Your task to perform on an android device: empty trash in google photos Image 0: 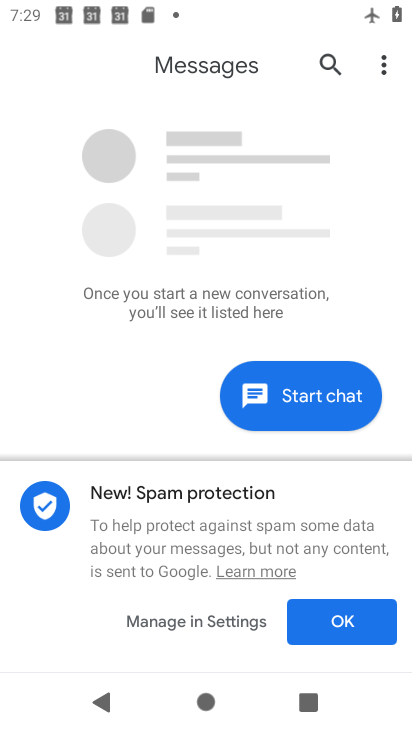
Step 0: press home button
Your task to perform on an android device: empty trash in google photos Image 1: 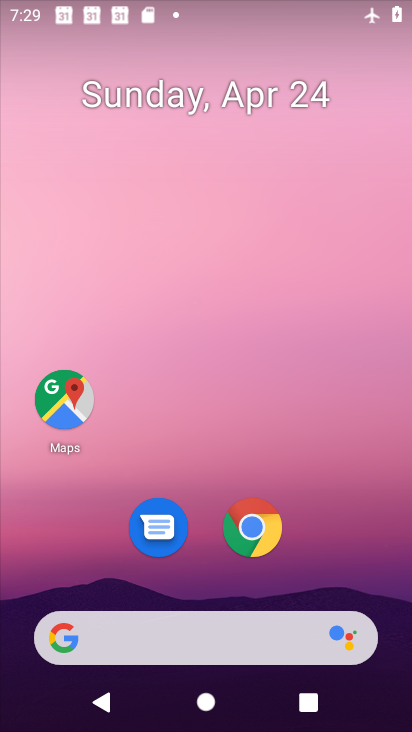
Step 1: drag from (357, 570) to (241, 24)
Your task to perform on an android device: empty trash in google photos Image 2: 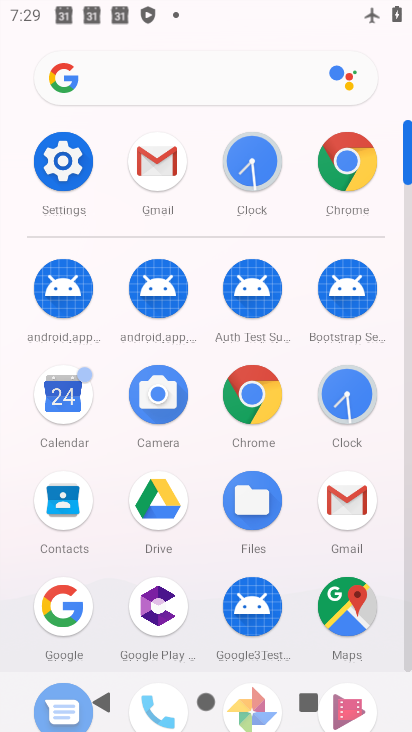
Step 2: click (407, 664)
Your task to perform on an android device: empty trash in google photos Image 3: 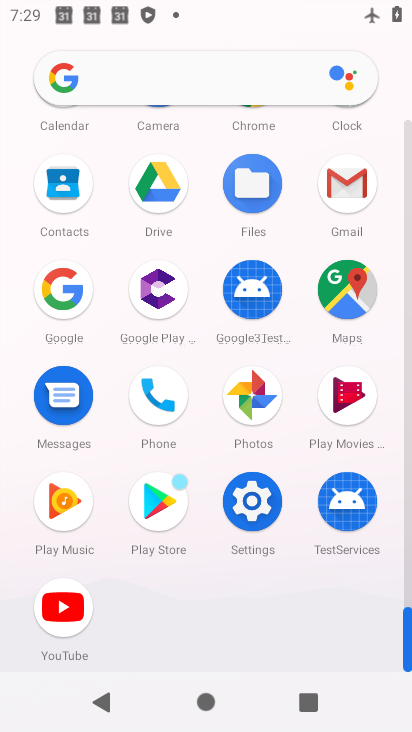
Step 3: click (249, 398)
Your task to perform on an android device: empty trash in google photos Image 4: 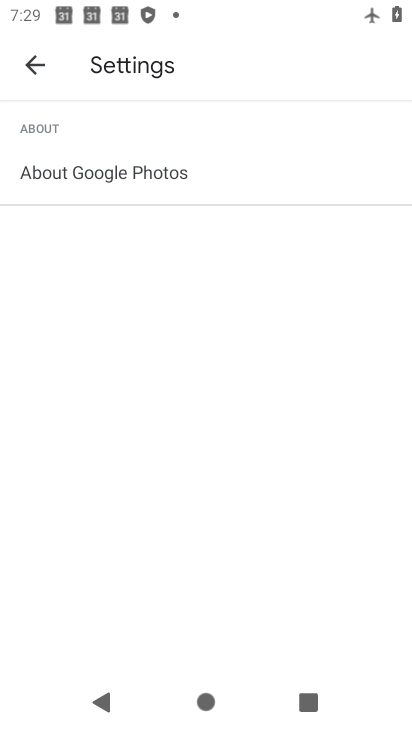
Step 4: press back button
Your task to perform on an android device: empty trash in google photos Image 5: 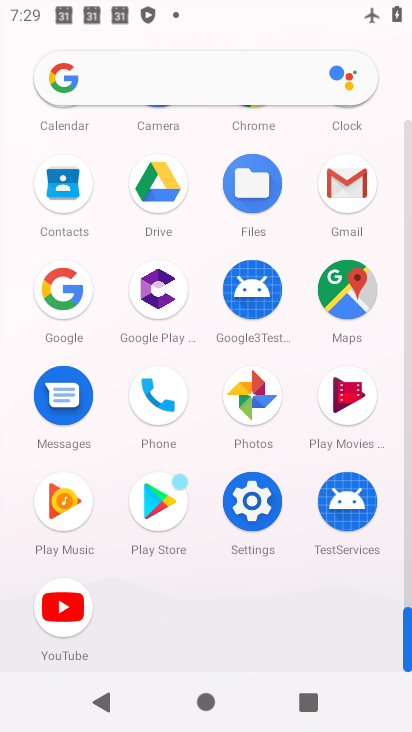
Step 5: click (266, 382)
Your task to perform on an android device: empty trash in google photos Image 6: 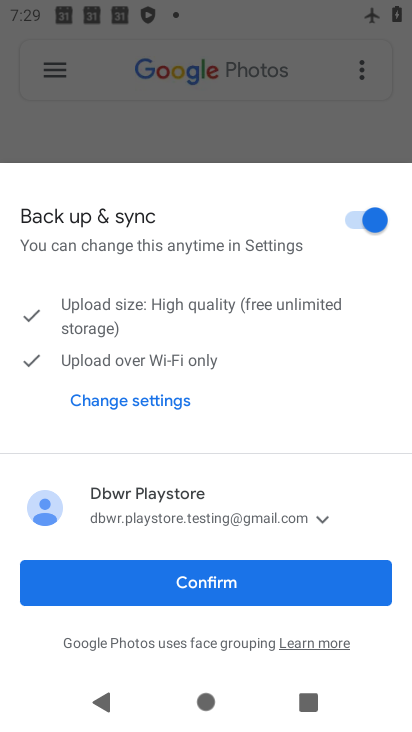
Step 6: click (249, 571)
Your task to perform on an android device: empty trash in google photos Image 7: 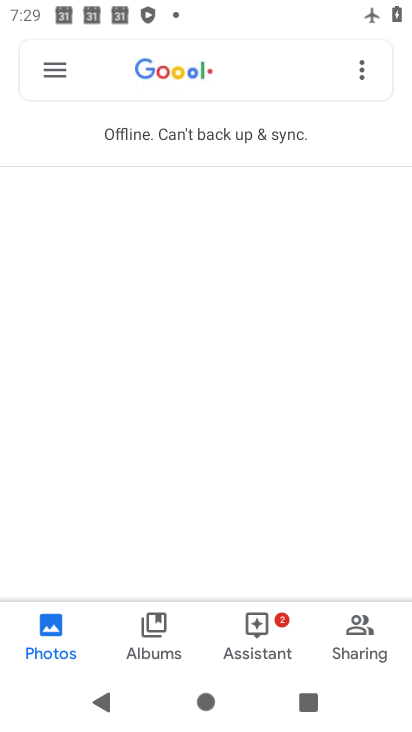
Step 7: click (51, 66)
Your task to perform on an android device: empty trash in google photos Image 8: 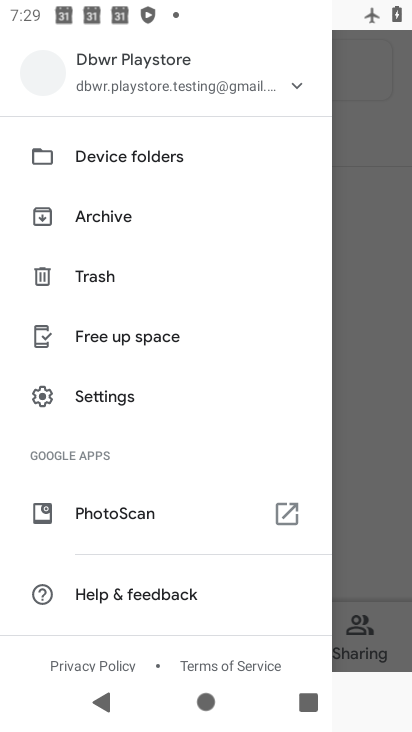
Step 8: click (130, 283)
Your task to perform on an android device: empty trash in google photos Image 9: 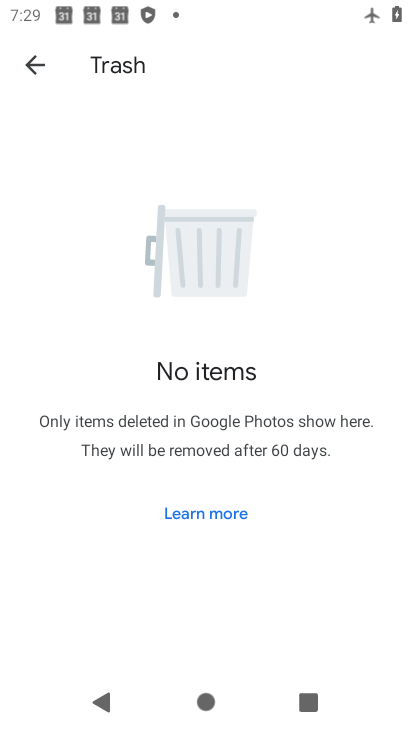
Step 9: task complete